Your task to perform on an android device: Go to eBay Image 0: 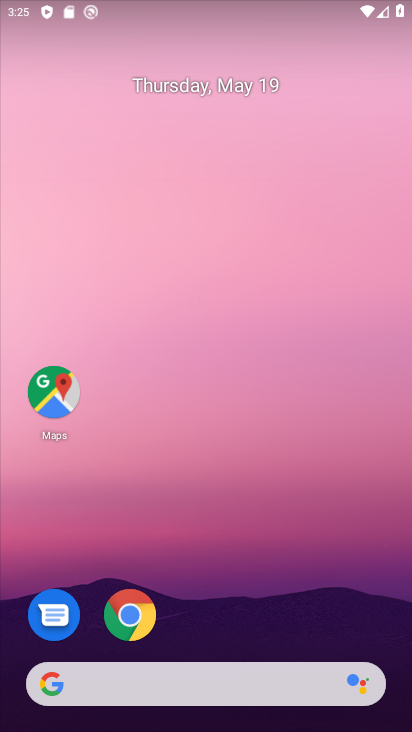
Step 0: drag from (288, 711) to (141, 143)
Your task to perform on an android device: Go to eBay Image 1: 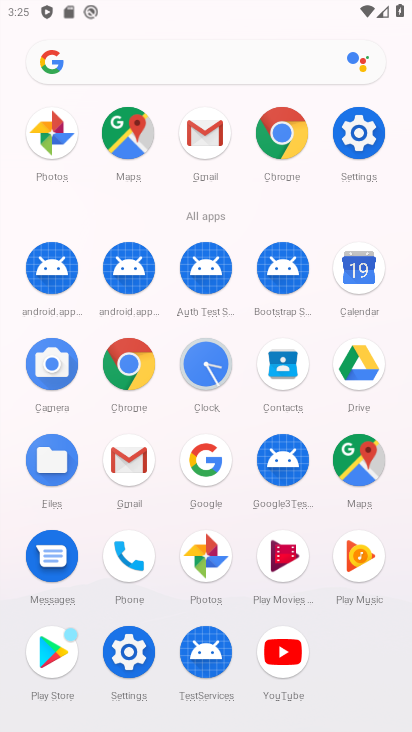
Step 1: click (278, 143)
Your task to perform on an android device: Go to eBay Image 2: 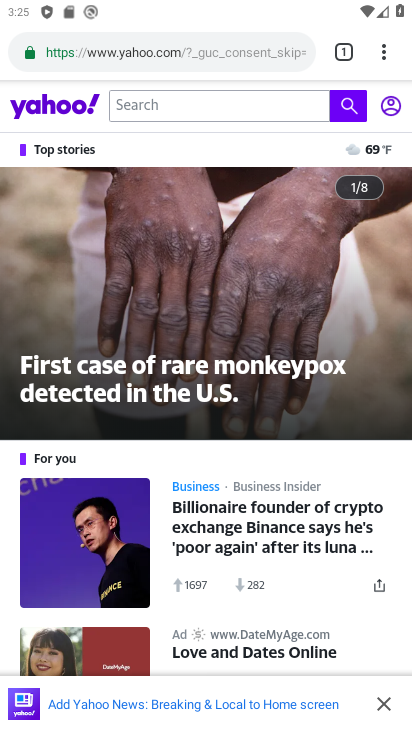
Step 2: drag from (386, 47) to (192, 97)
Your task to perform on an android device: Go to eBay Image 3: 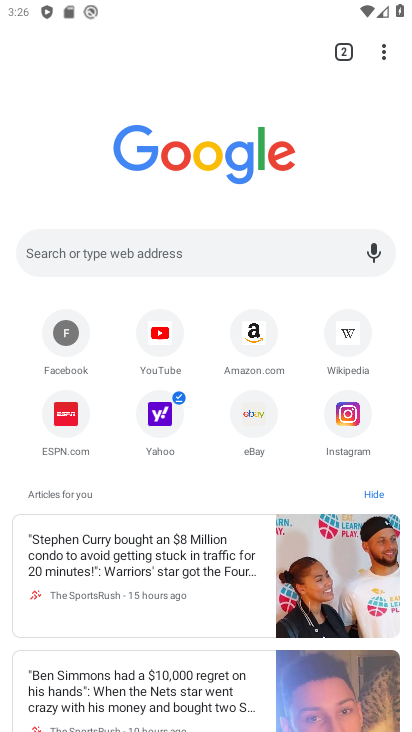
Step 3: click (255, 416)
Your task to perform on an android device: Go to eBay Image 4: 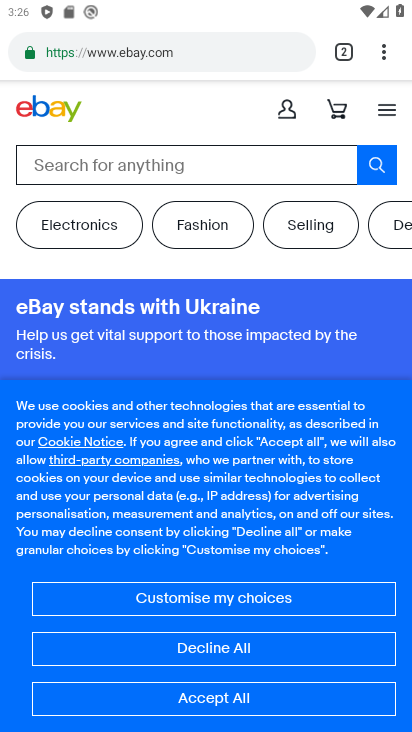
Step 4: task complete